Your task to perform on an android device: create a new album in the google photos Image 0: 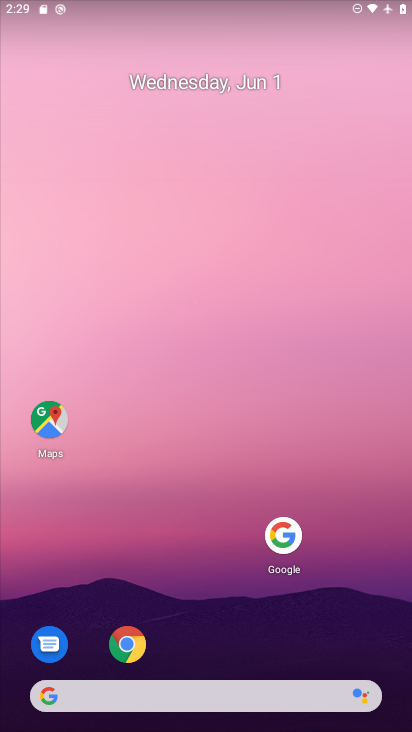
Step 0: drag from (155, 697) to (316, 174)
Your task to perform on an android device: create a new album in the google photos Image 1: 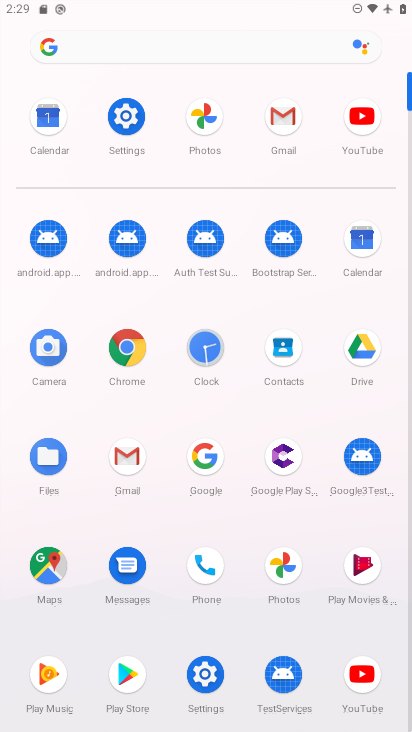
Step 1: click (283, 574)
Your task to perform on an android device: create a new album in the google photos Image 2: 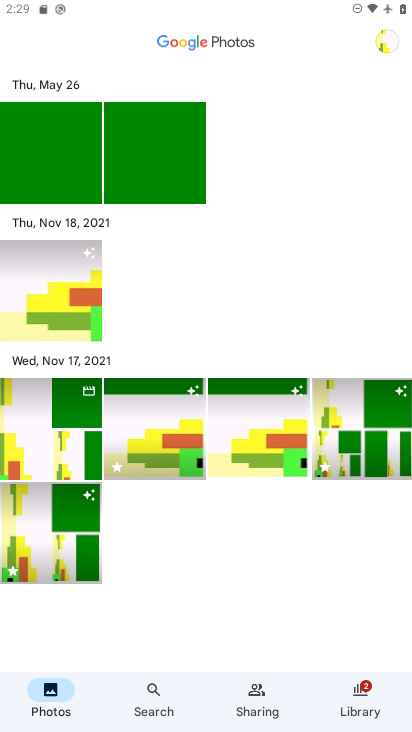
Step 2: click (358, 711)
Your task to perform on an android device: create a new album in the google photos Image 3: 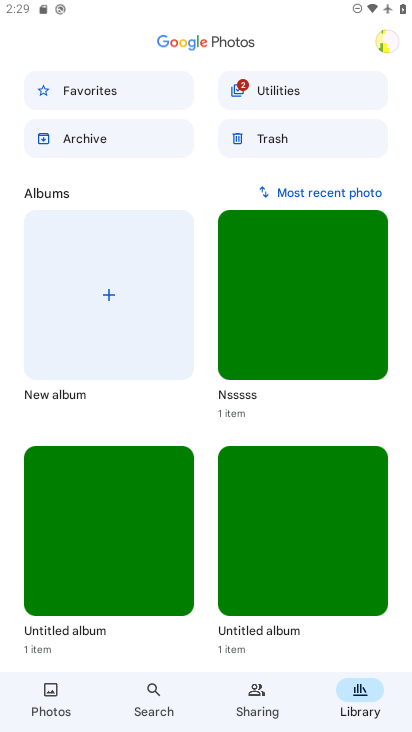
Step 3: click (105, 296)
Your task to perform on an android device: create a new album in the google photos Image 4: 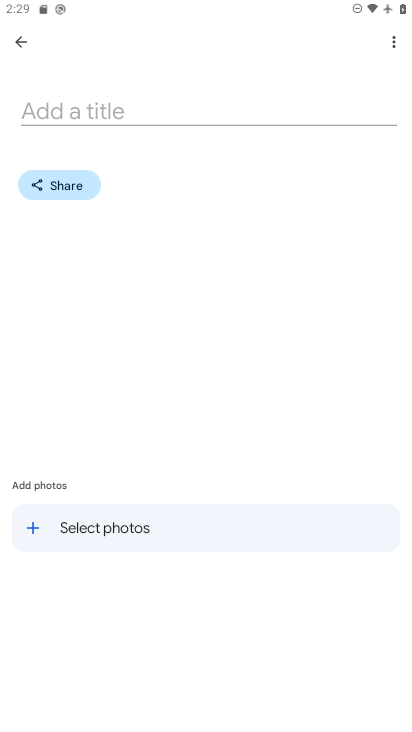
Step 4: click (138, 532)
Your task to perform on an android device: create a new album in the google photos Image 5: 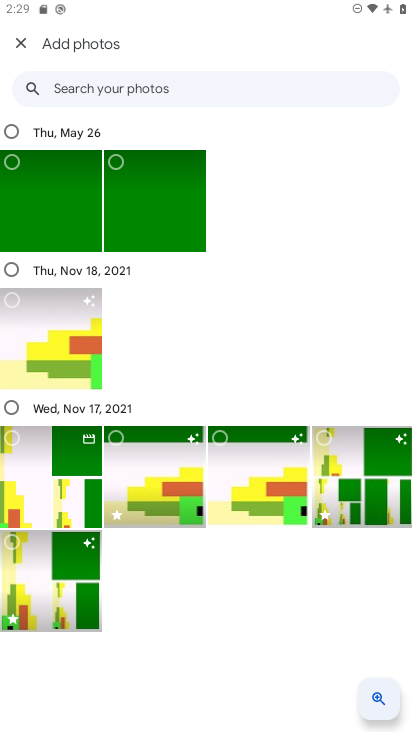
Step 5: click (52, 211)
Your task to perform on an android device: create a new album in the google photos Image 6: 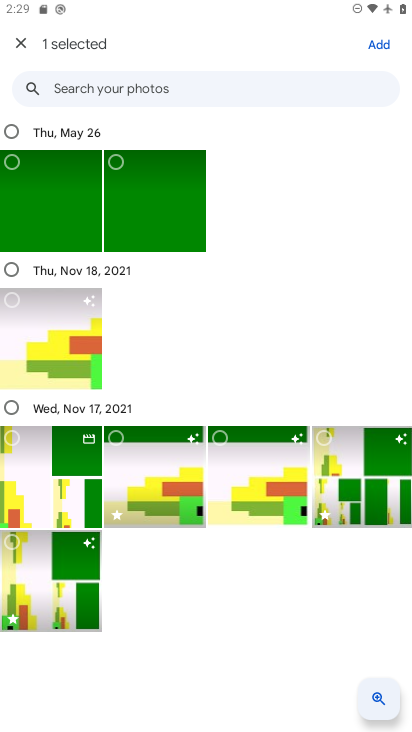
Step 6: click (26, 348)
Your task to perform on an android device: create a new album in the google photos Image 7: 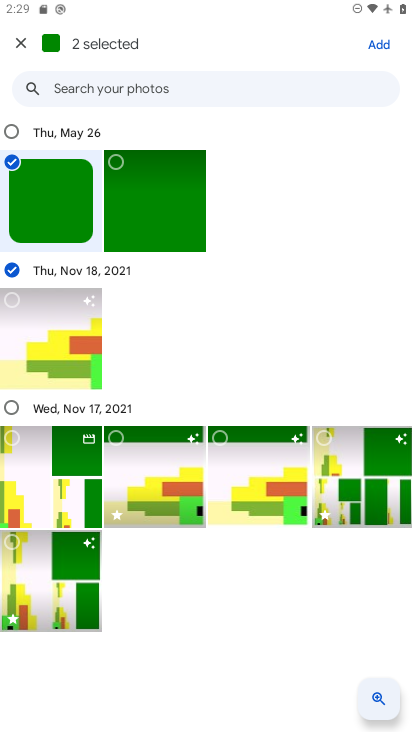
Step 7: click (26, 485)
Your task to perform on an android device: create a new album in the google photos Image 8: 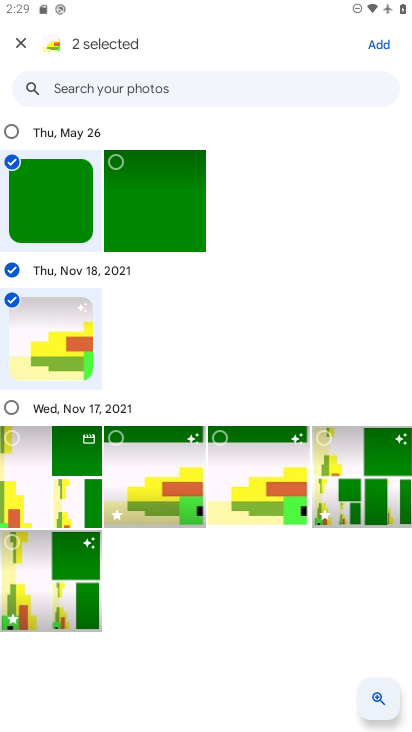
Step 8: click (146, 492)
Your task to perform on an android device: create a new album in the google photos Image 9: 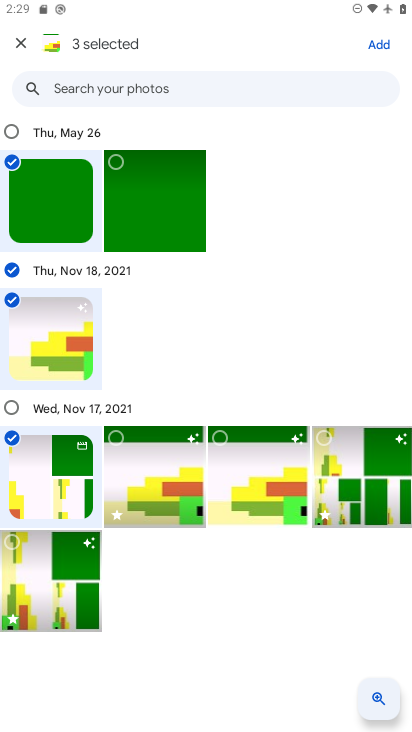
Step 9: click (264, 474)
Your task to perform on an android device: create a new album in the google photos Image 10: 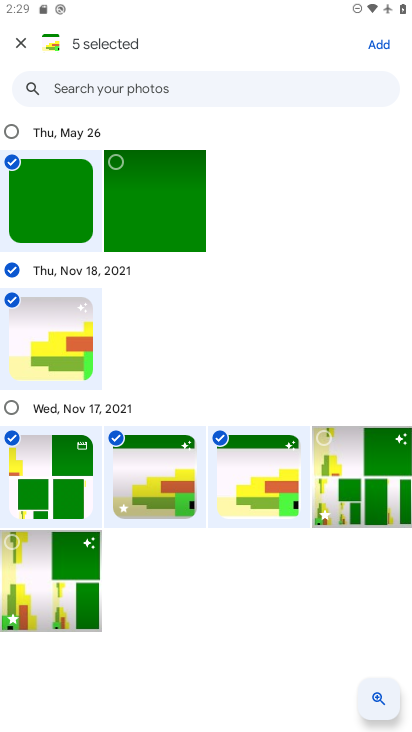
Step 10: click (391, 36)
Your task to perform on an android device: create a new album in the google photos Image 11: 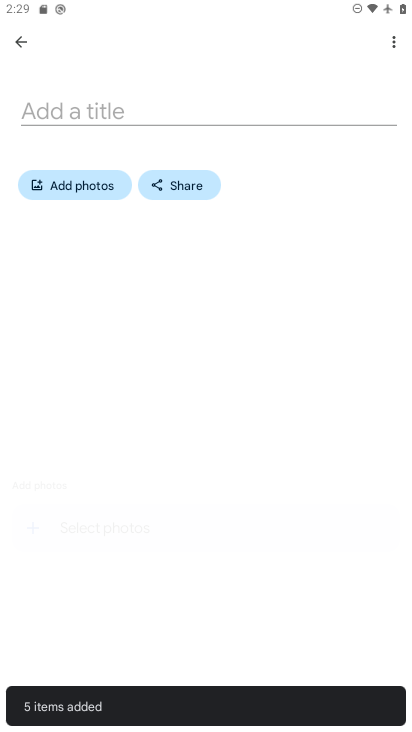
Step 11: click (110, 517)
Your task to perform on an android device: create a new album in the google photos Image 12: 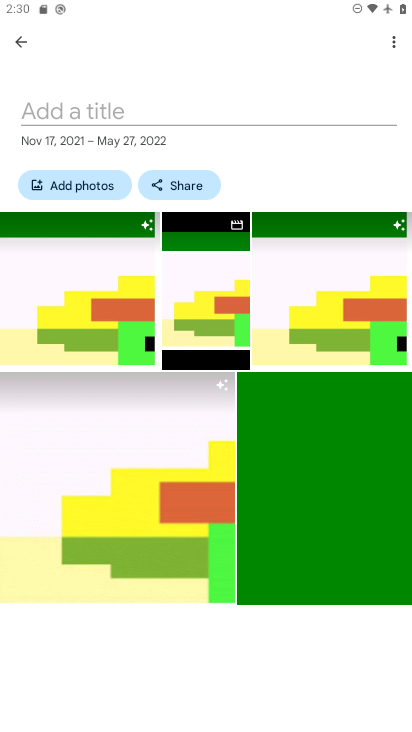
Step 12: task complete